Your task to perform on an android device: Open calendar and show me the third week of next month Image 0: 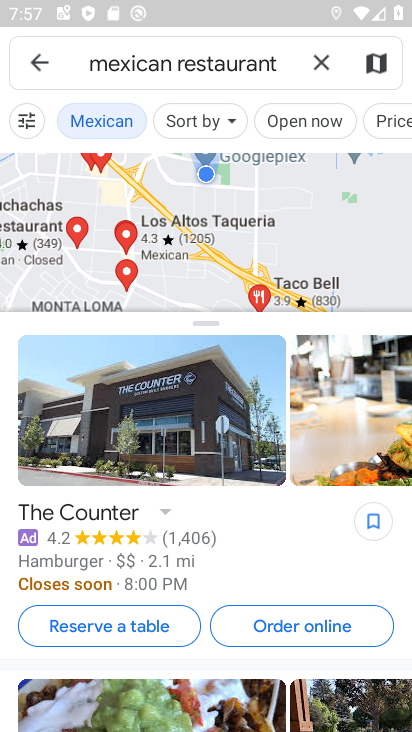
Step 0: press home button
Your task to perform on an android device: Open calendar and show me the third week of next month Image 1: 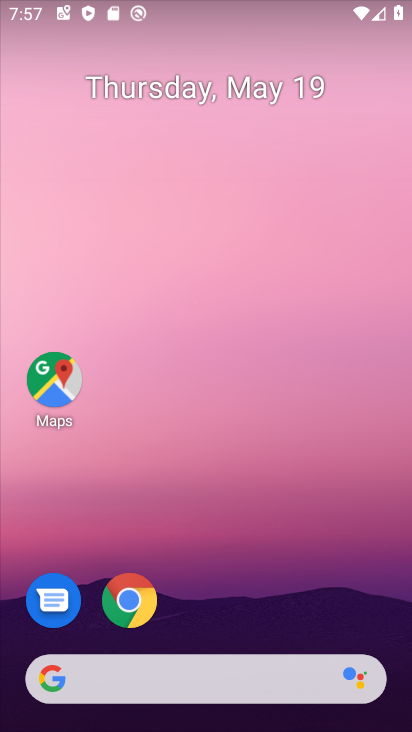
Step 1: drag from (273, 623) to (265, 10)
Your task to perform on an android device: Open calendar and show me the third week of next month Image 2: 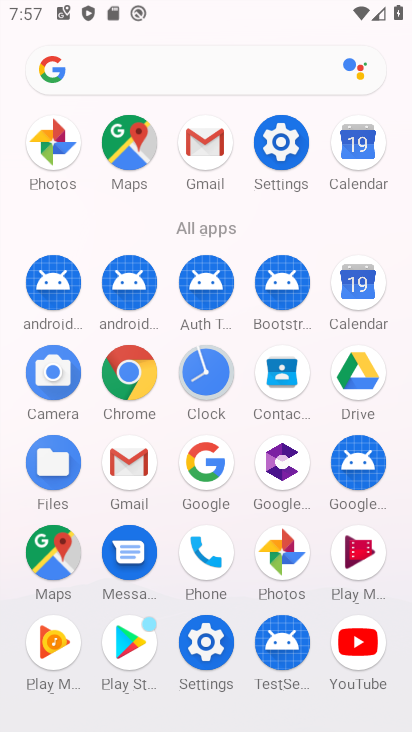
Step 2: click (360, 152)
Your task to perform on an android device: Open calendar and show me the third week of next month Image 3: 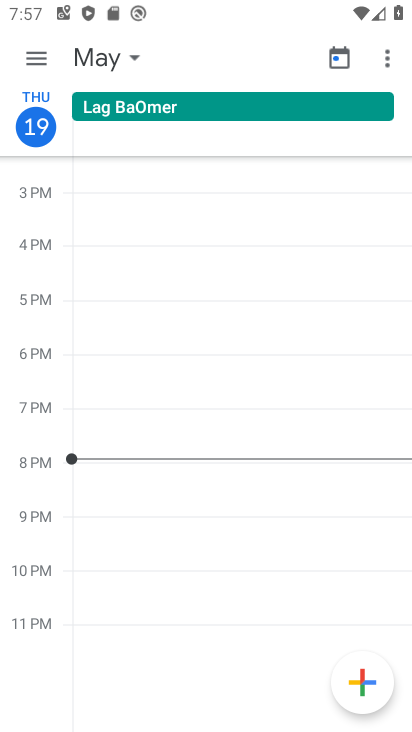
Step 3: click (133, 60)
Your task to perform on an android device: Open calendar and show me the third week of next month Image 4: 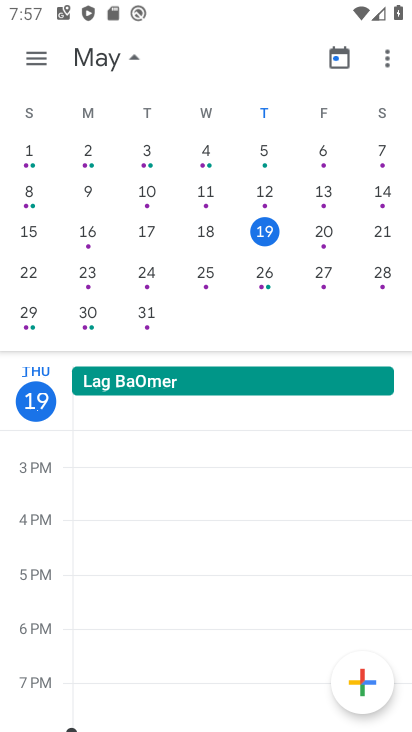
Step 4: drag from (348, 255) to (5, 53)
Your task to perform on an android device: Open calendar and show me the third week of next month Image 5: 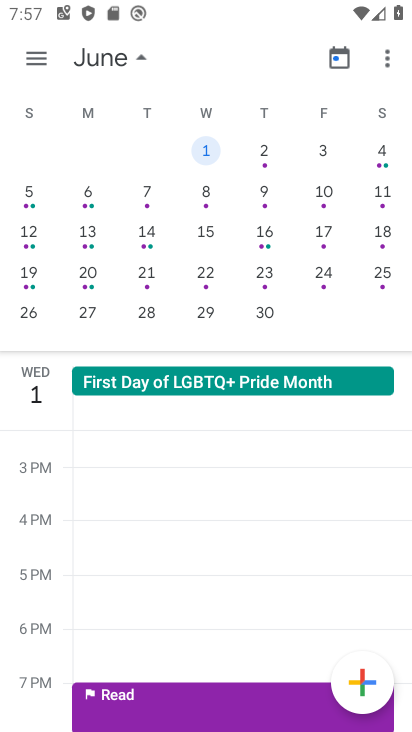
Step 5: click (34, 61)
Your task to perform on an android device: Open calendar and show me the third week of next month Image 6: 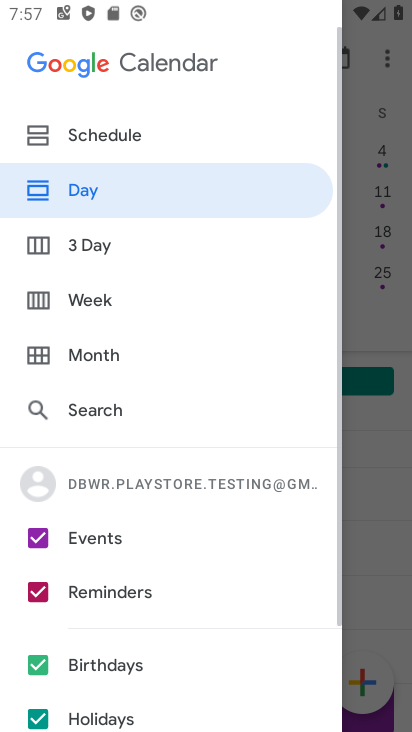
Step 6: click (56, 298)
Your task to perform on an android device: Open calendar and show me the third week of next month Image 7: 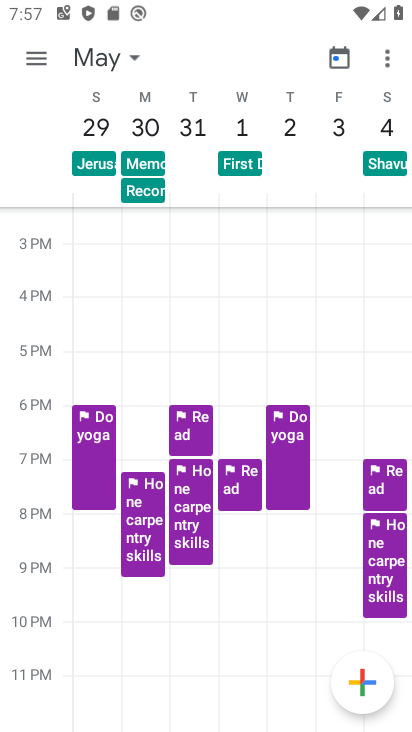
Step 7: task complete